Your task to perform on an android device: turn off location history Image 0: 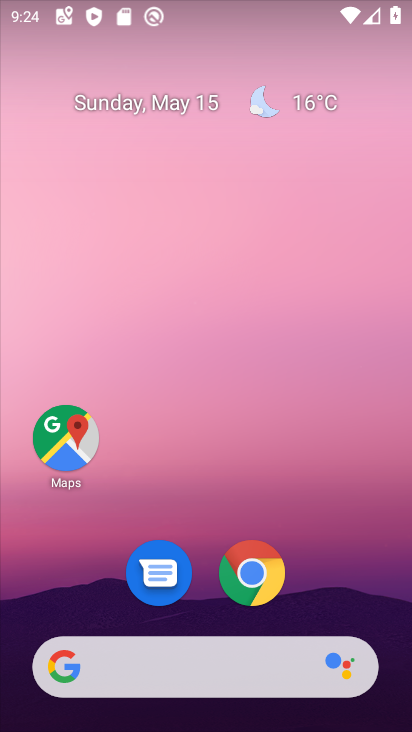
Step 0: press home button
Your task to perform on an android device: turn off location history Image 1: 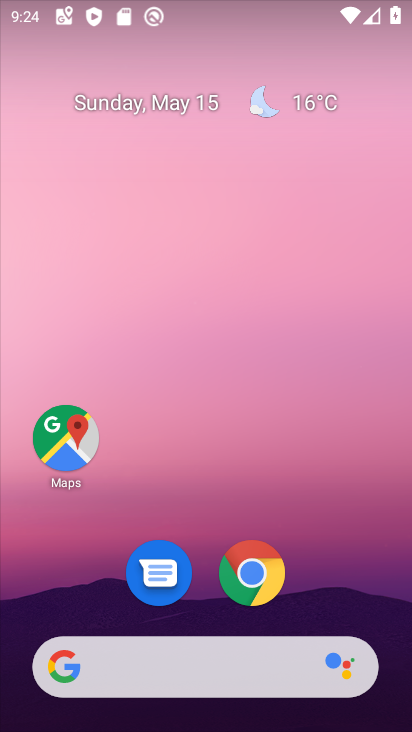
Step 1: press home button
Your task to perform on an android device: turn off location history Image 2: 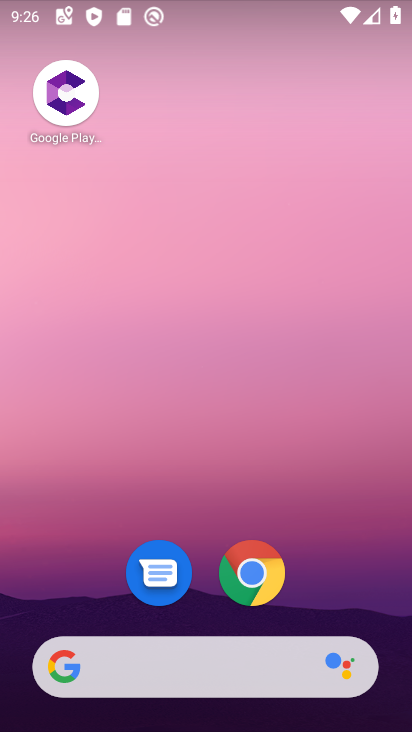
Step 2: drag from (350, 583) to (327, 83)
Your task to perform on an android device: turn off location history Image 3: 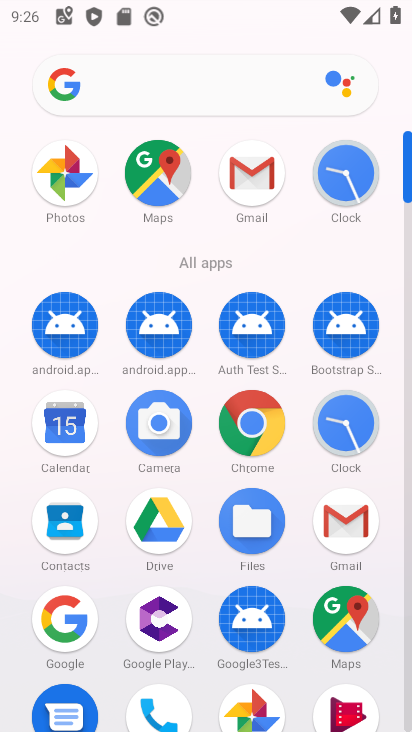
Step 3: click (408, 729)
Your task to perform on an android device: turn off location history Image 4: 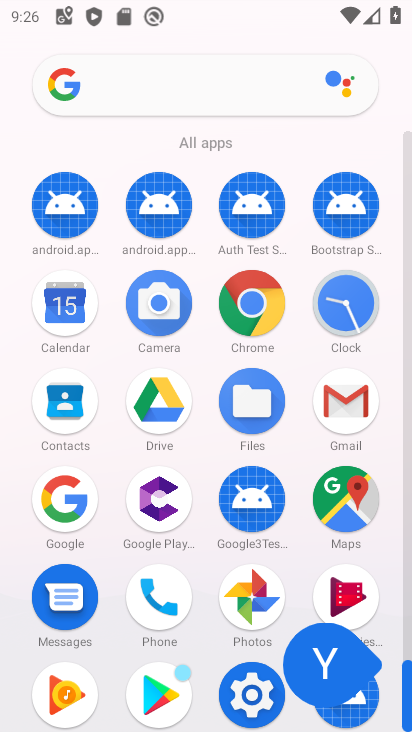
Step 4: click (408, 729)
Your task to perform on an android device: turn off location history Image 5: 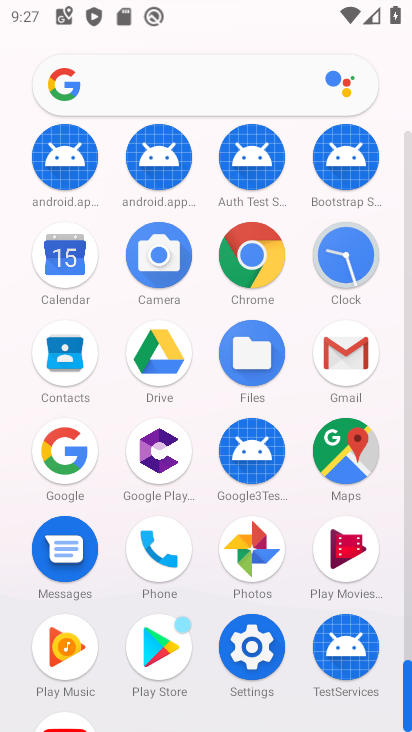
Step 5: click (337, 469)
Your task to perform on an android device: turn off location history Image 6: 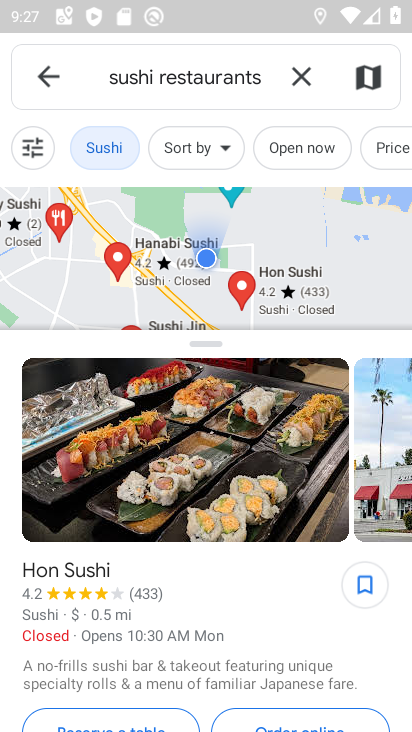
Step 6: click (40, 84)
Your task to perform on an android device: turn off location history Image 7: 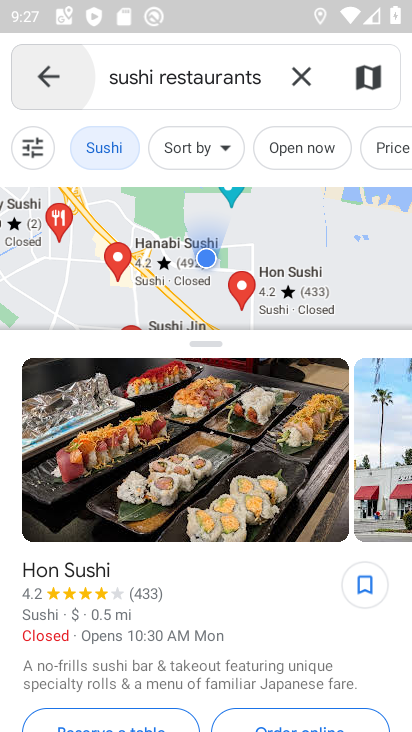
Step 7: click (40, 84)
Your task to perform on an android device: turn off location history Image 8: 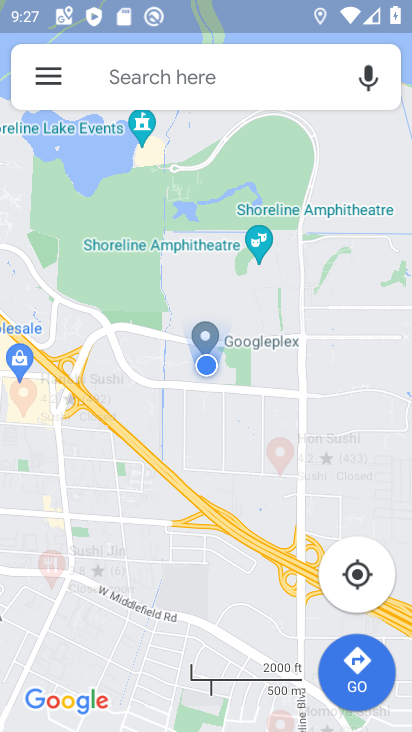
Step 8: click (43, 84)
Your task to perform on an android device: turn off location history Image 9: 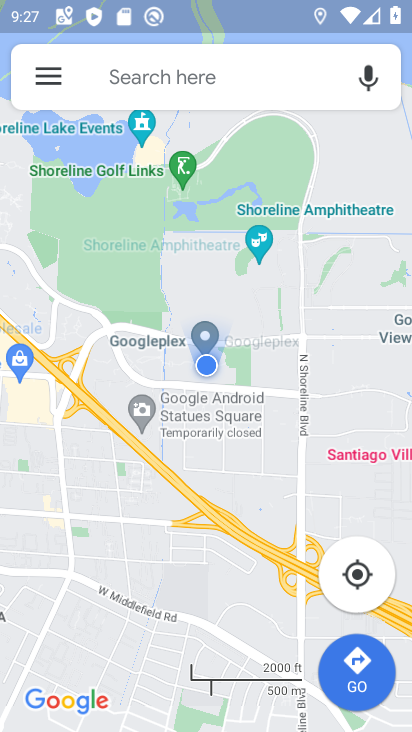
Step 9: click (47, 84)
Your task to perform on an android device: turn off location history Image 10: 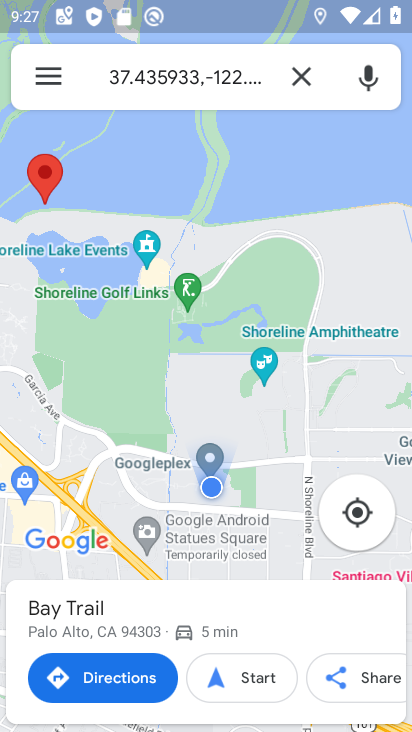
Step 10: click (39, 72)
Your task to perform on an android device: turn off location history Image 11: 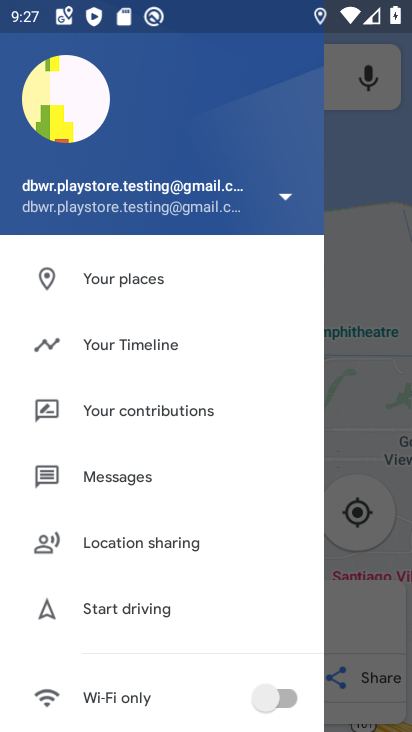
Step 11: click (105, 358)
Your task to perform on an android device: turn off location history Image 12: 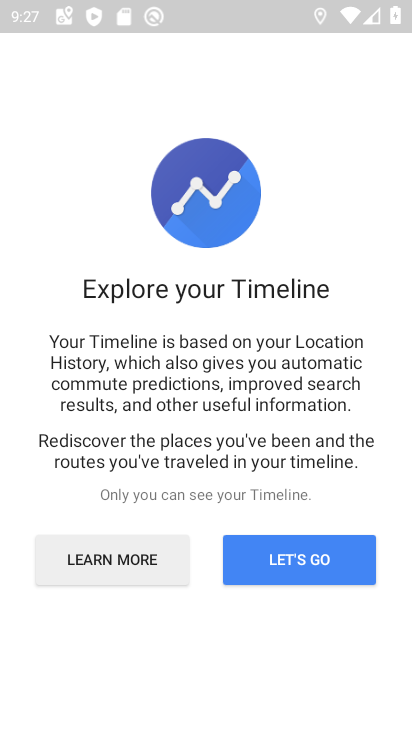
Step 12: click (288, 558)
Your task to perform on an android device: turn off location history Image 13: 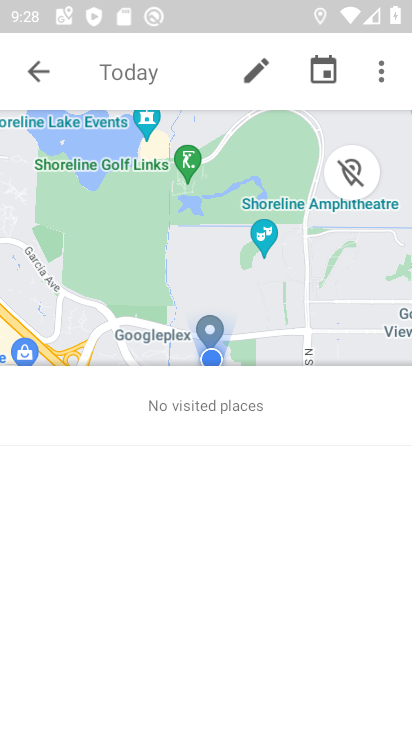
Step 13: click (372, 79)
Your task to perform on an android device: turn off location history Image 14: 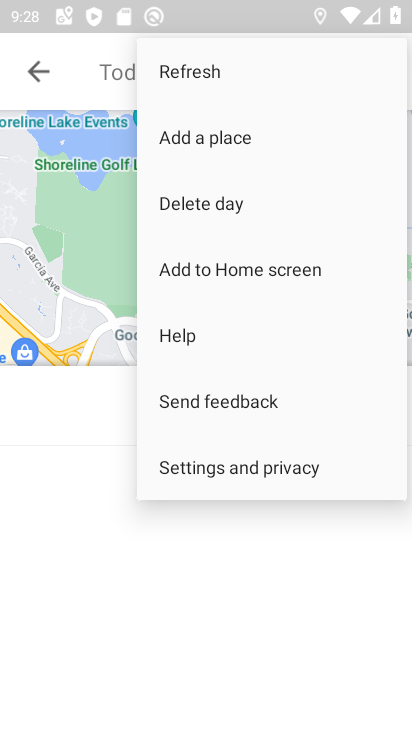
Step 14: click (234, 473)
Your task to perform on an android device: turn off location history Image 15: 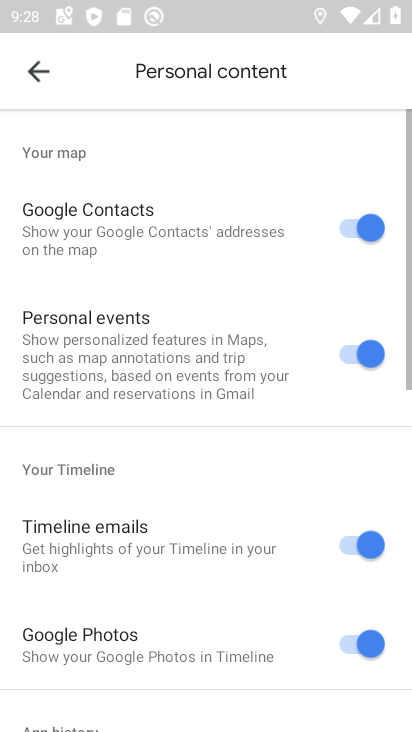
Step 15: drag from (236, 603) to (245, 512)
Your task to perform on an android device: turn off location history Image 16: 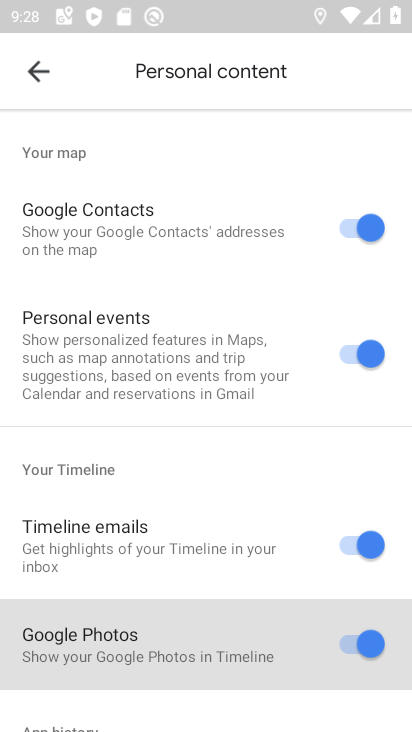
Step 16: drag from (246, 354) to (237, 213)
Your task to perform on an android device: turn off location history Image 17: 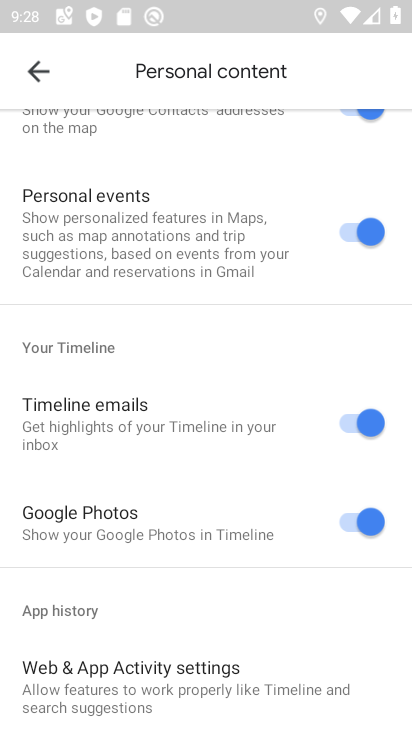
Step 17: drag from (234, 617) to (197, 175)
Your task to perform on an android device: turn off location history Image 18: 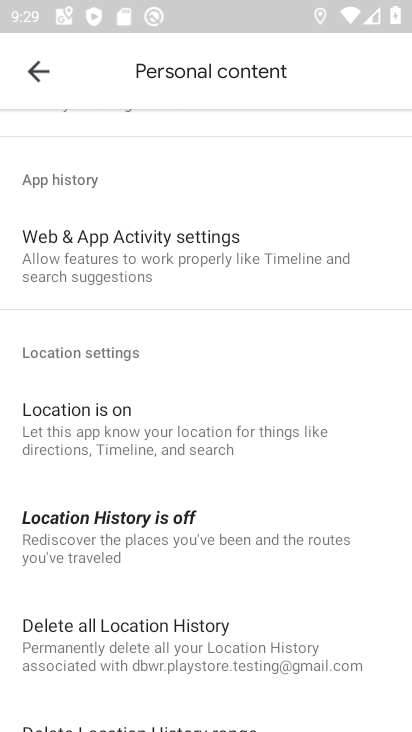
Step 18: click (156, 537)
Your task to perform on an android device: turn off location history Image 19: 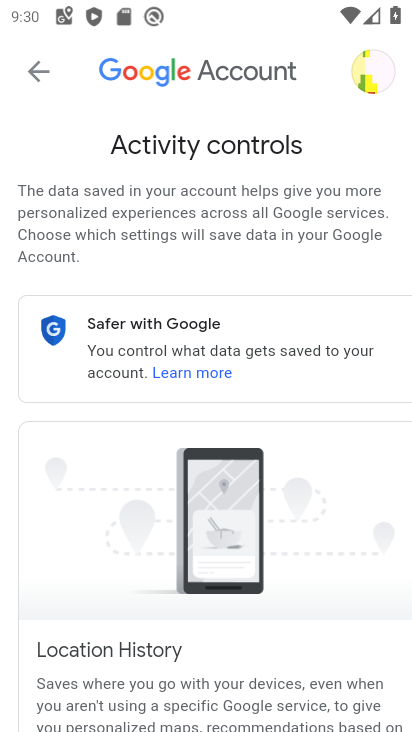
Step 19: task complete